Your task to perform on an android device: Open the phone app and click the voicemail tab. Image 0: 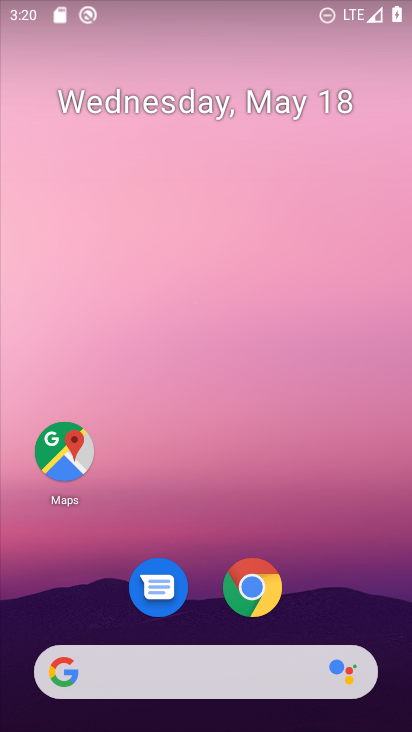
Step 0: drag from (194, 674) to (190, 63)
Your task to perform on an android device: Open the phone app and click the voicemail tab. Image 1: 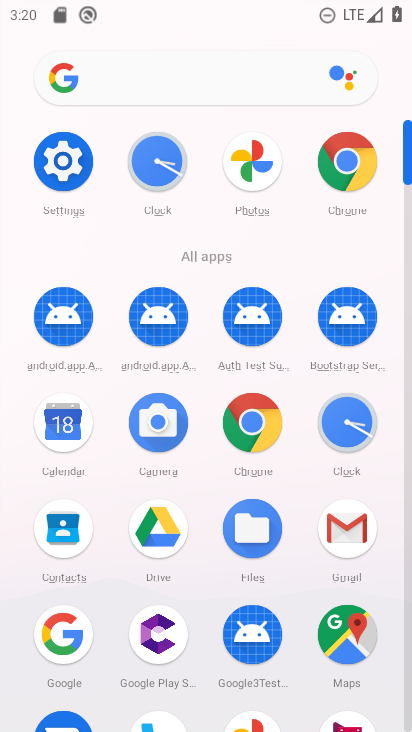
Step 1: click (152, 709)
Your task to perform on an android device: Open the phone app and click the voicemail tab. Image 2: 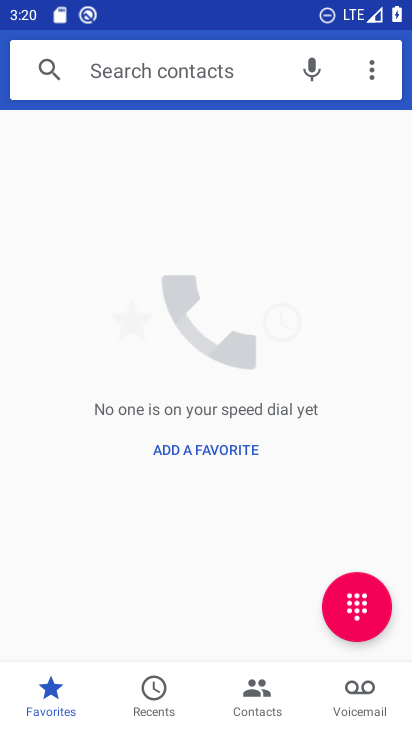
Step 2: click (375, 695)
Your task to perform on an android device: Open the phone app and click the voicemail tab. Image 3: 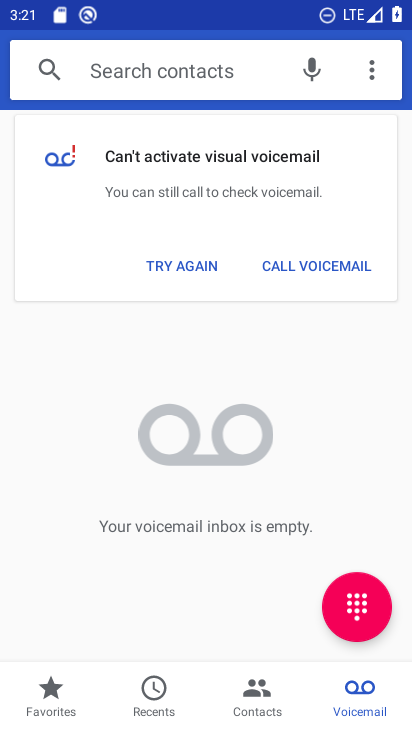
Step 3: task complete